Your task to perform on an android device: Toggle the flashlight Image 0: 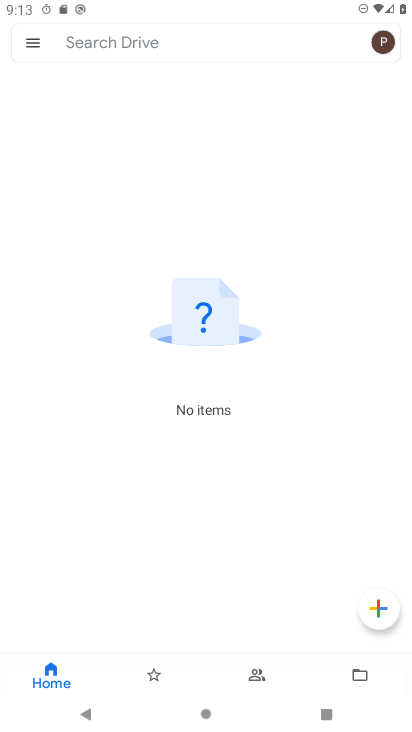
Step 0: drag from (225, 537) to (225, 236)
Your task to perform on an android device: Toggle the flashlight Image 1: 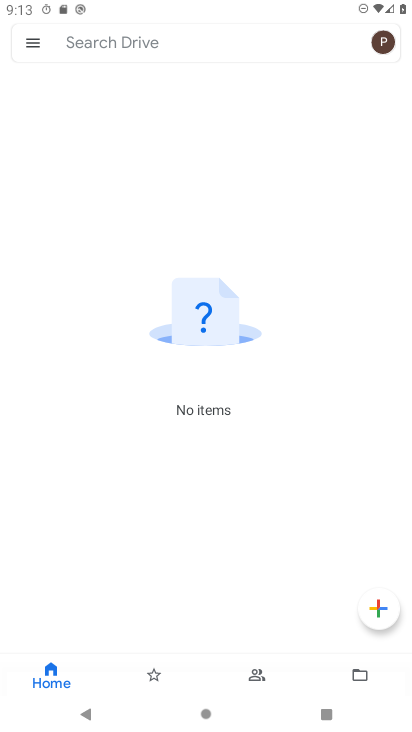
Step 1: task complete